Your task to perform on an android device: Search for vegetarian restaurants on Maps Image 0: 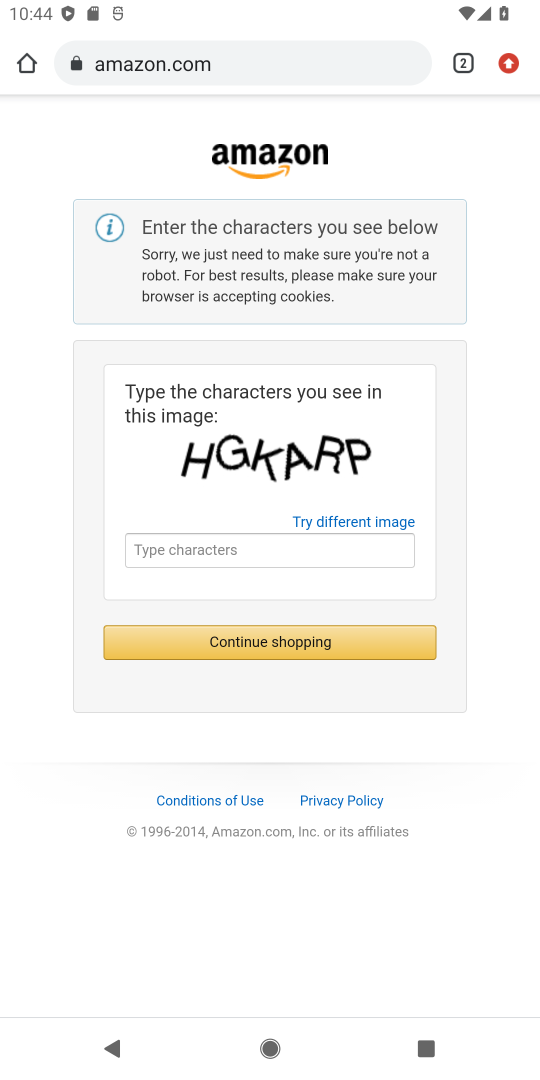
Step 0: press home button
Your task to perform on an android device: Search for vegetarian restaurants on Maps Image 1: 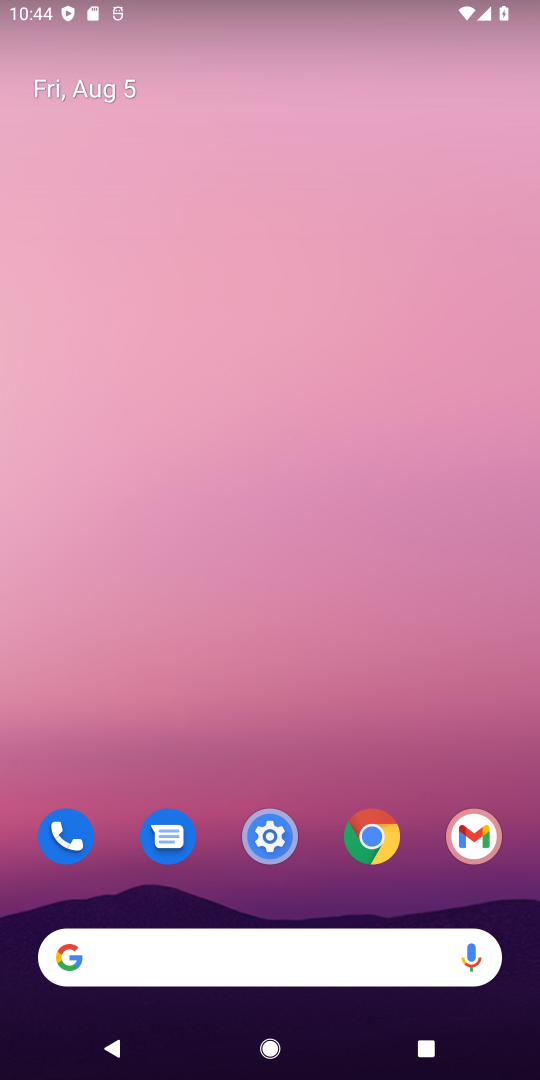
Step 1: drag from (324, 762) to (317, 197)
Your task to perform on an android device: Search for vegetarian restaurants on Maps Image 2: 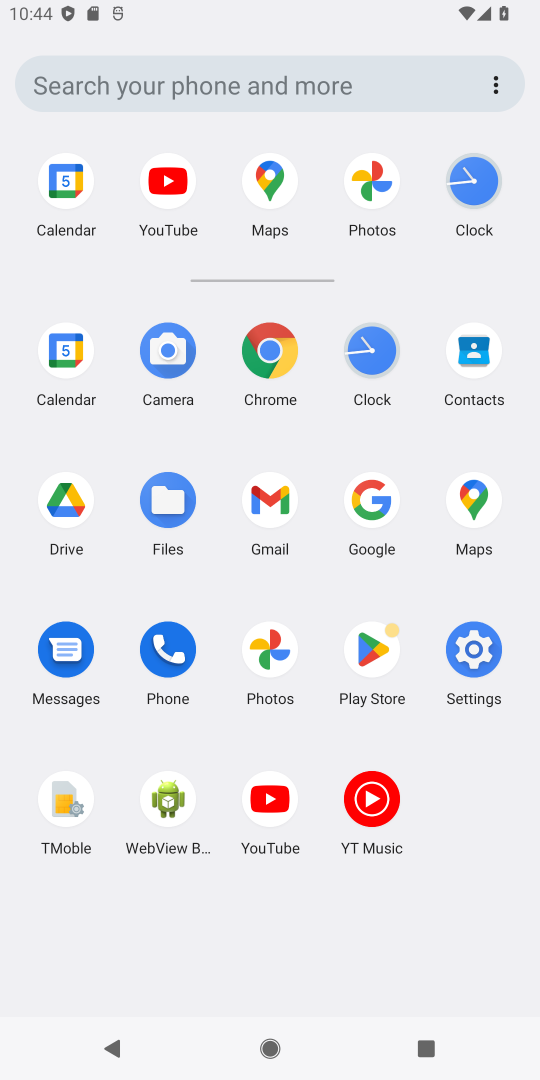
Step 2: click (481, 497)
Your task to perform on an android device: Search for vegetarian restaurants on Maps Image 3: 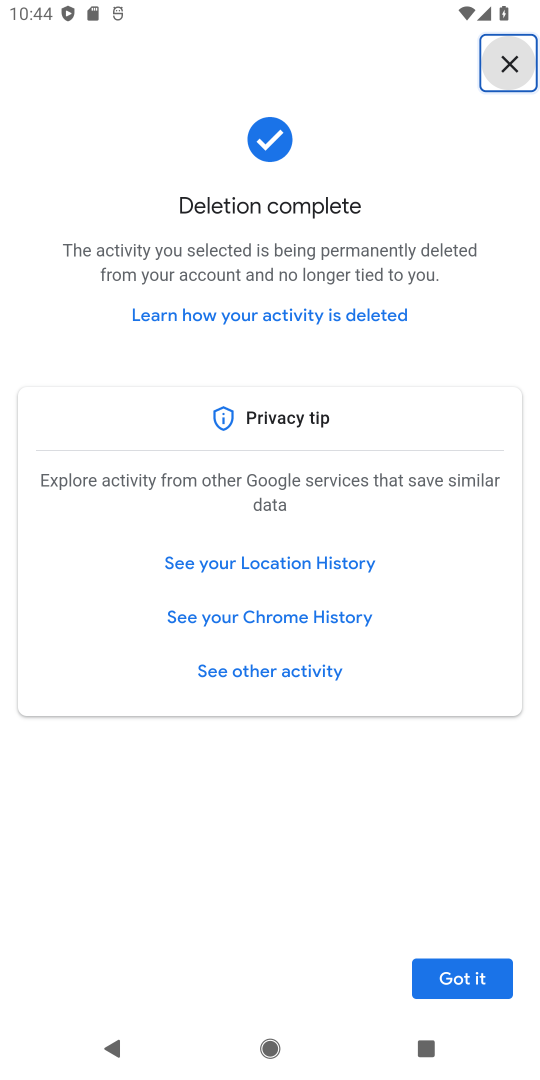
Step 3: click (472, 966)
Your task to perform on an android device: Search for vegetarian restaurants on Maps Image 4: 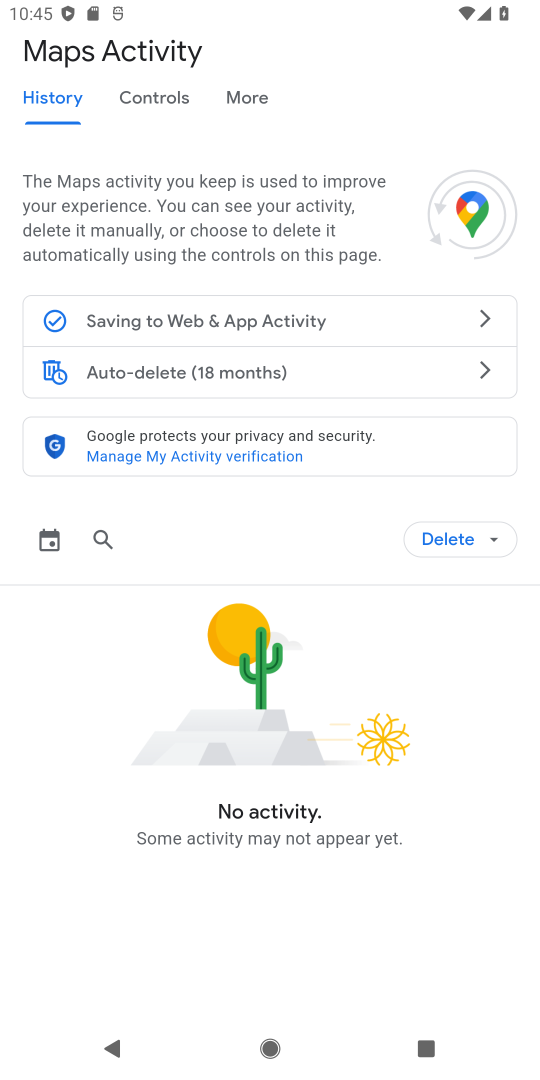
Step 4: press back button
Your task to perform on an android device: Search for vegetarian restaurants on Maps Image 5: 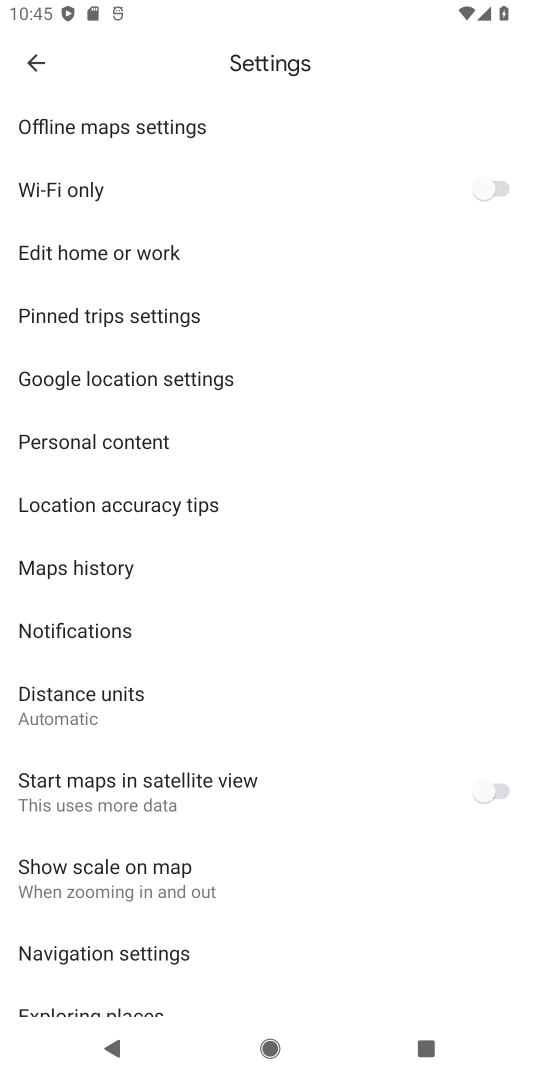
Step 5: press back button
Your task to perform on an android device: Search for vegetarian restaurants on Maps Image 6: 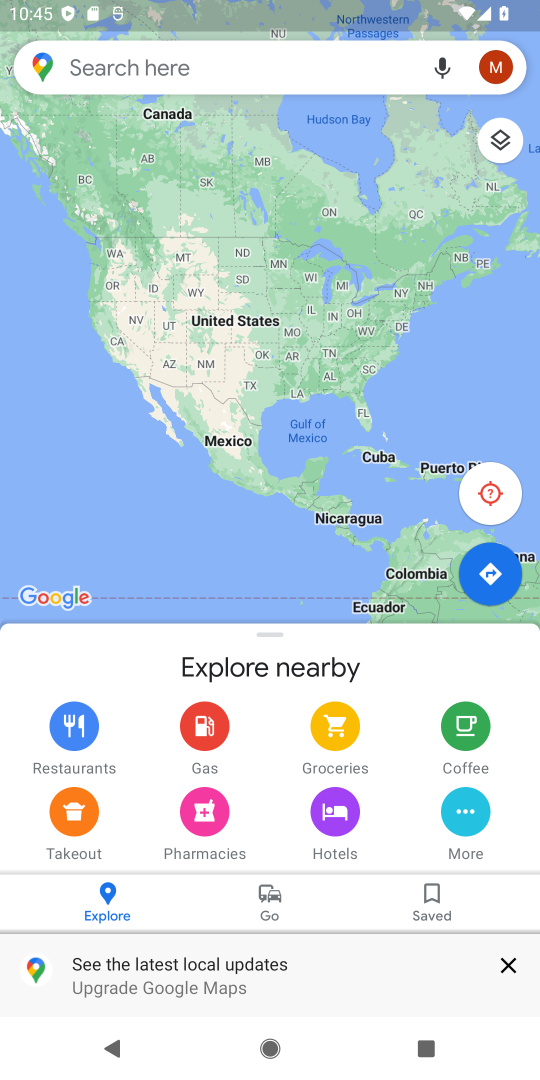
Step 6: click (223, 68)
Your task to perform on an android device: Search for vegetarian restaurants on Maps Image 7: 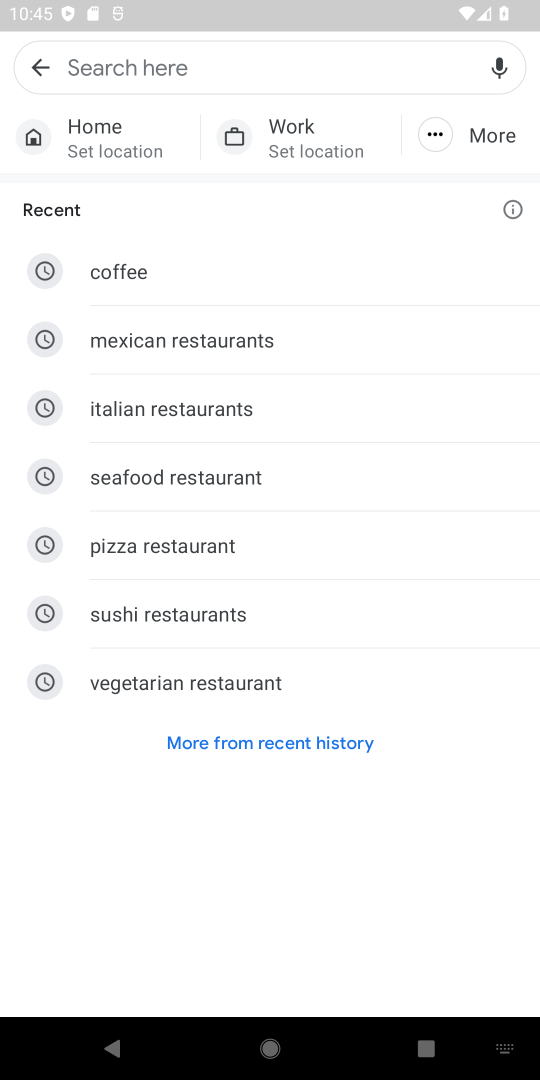
Step 7: type "vegetarian restaurants"
Your task to perform on an android device: Search for vegetarian restaurants on Maps Image 8: 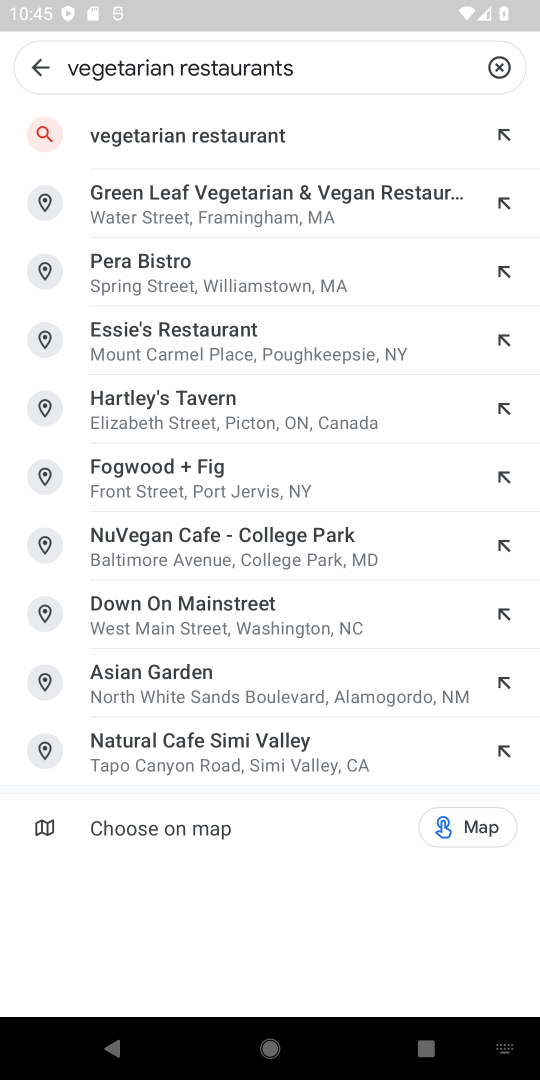
Step 8: press enter
Your task to perform on an android device: Search for vegetarian restaurants on Maps Image 9: 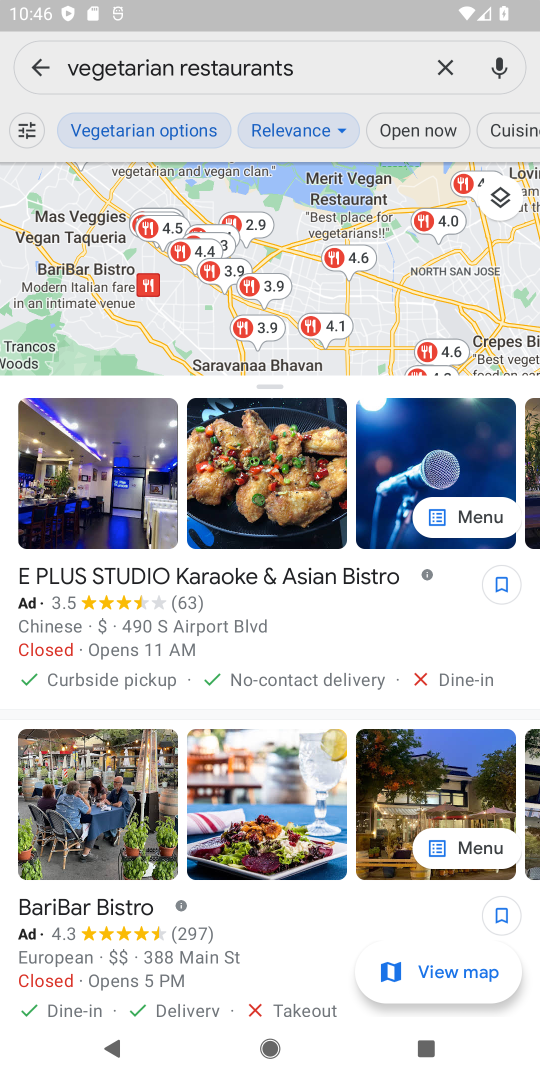
Step 9: task complete